Your task to perform on an android device: Go to Android settings Image 0: 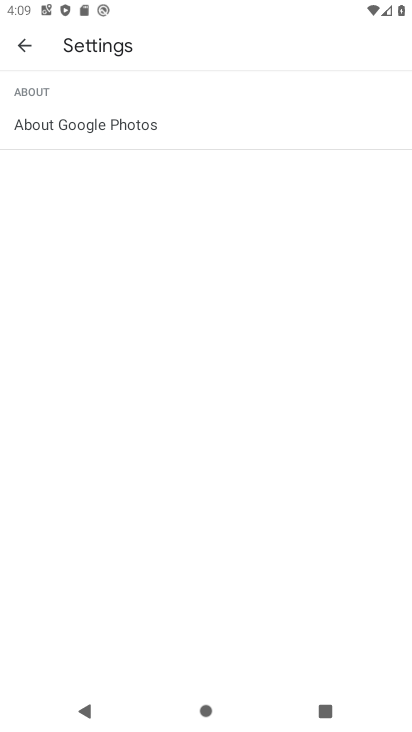
Step 0: press home button
Your task to perform on an android device: Go to Android settings Image 1: 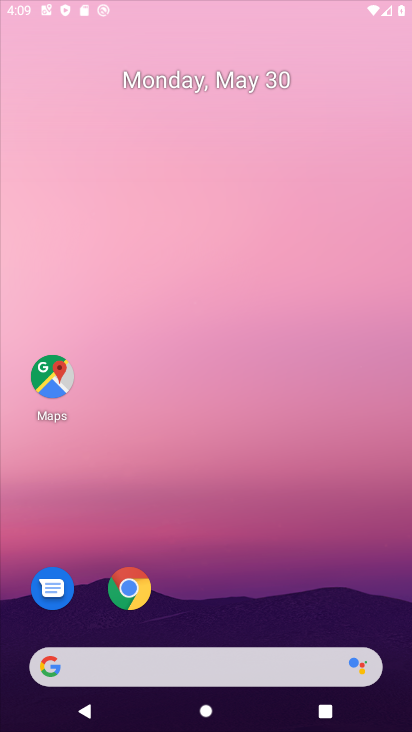
Step 1: drag from (286, 302) to (292, 252)
Your task to perform on an android device: Go to Android settings Image 2: 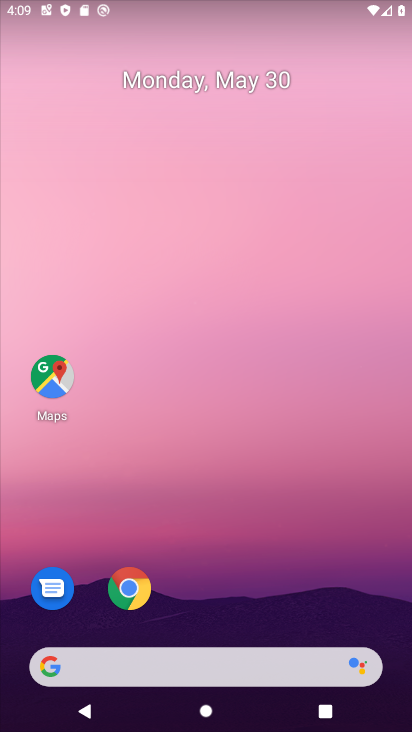
Step 2: drag from (284, 602) to (245, 259)
Your task to perform on an android device: Go to Android settings Image 3: 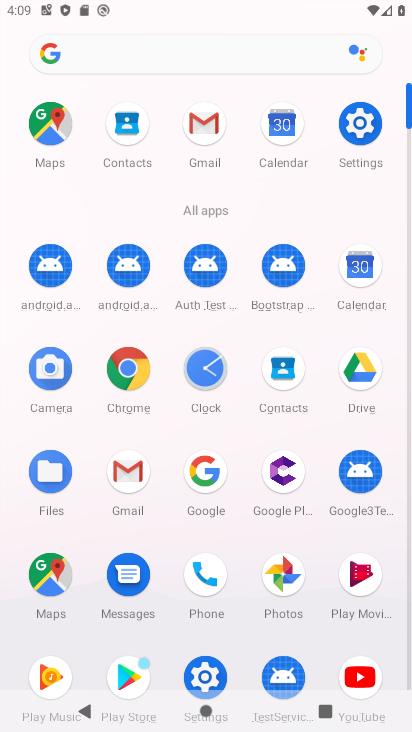
Step 3: click (346, 124)
Your task to perform on an android device: Go to Android settings Image 4: 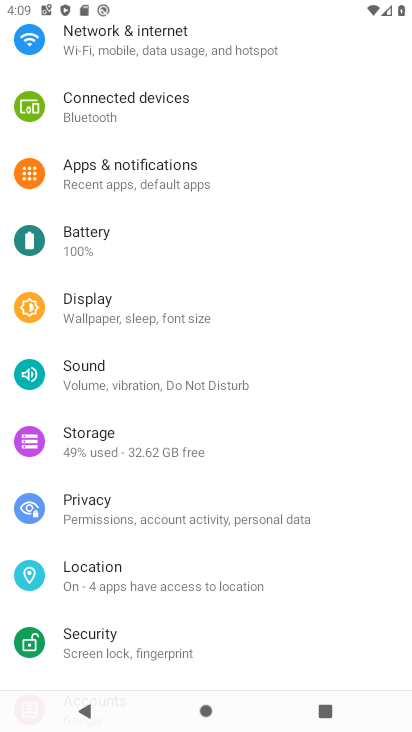
Step 4: task complete